Your task to perform on an android device: Go to Amazon Image 0: 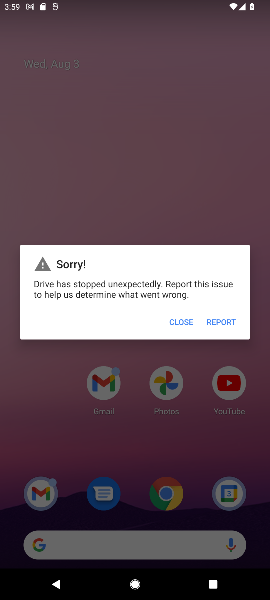
Step 0: press home button
Your task to perform on an android device: Go to Amazon Image 1: 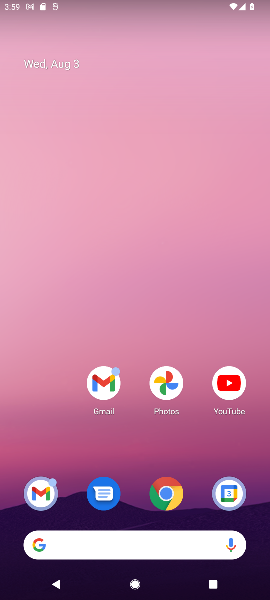
Step 1: drag from (48, 435) to (67, 151)
Your task to perform on an android device: Go to Amazon Image 2: 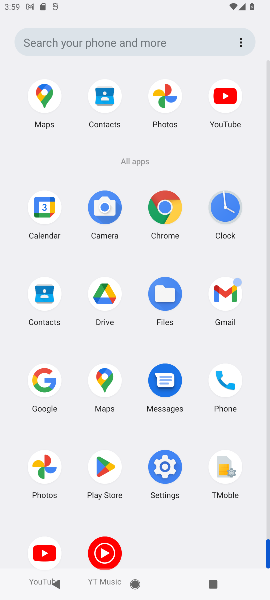
Step 2: click (165, 222)
Your task to perform on an android device: Go to Amazon Image 3: 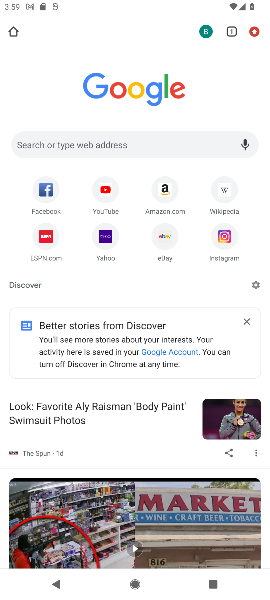
Step 3: click (174, 142)
Your task to perform on an android device: Go to Amazon Image 4: 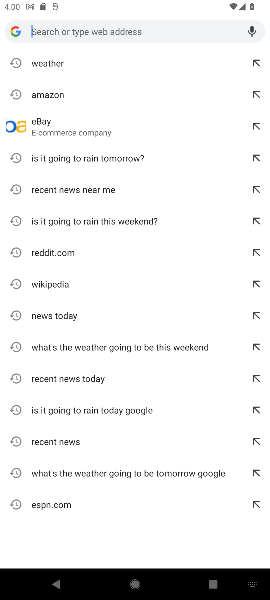
Step 4: type "amazon"
Your task to perform on an android device: Go to Amazon Image 5: 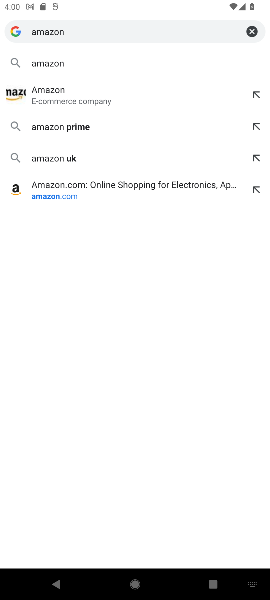
Step 5: click (63, 89)
Your task to perform on an android device: Go to Amazon Image 6: 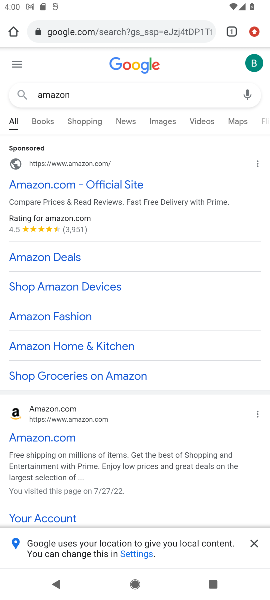
Step 6: task complete